Your task to perform on an android device: Search for Italian restaurants on Maps Image 0: 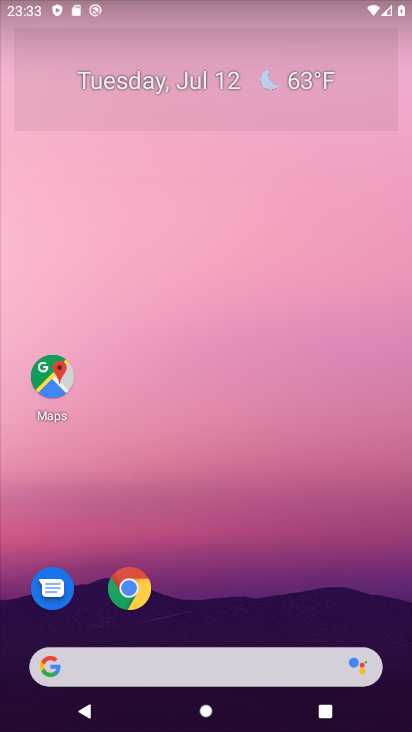
Step 0: click (55, 398)
Your task to perform on an android device: Search for Italian restaurants on Maps Image 1: 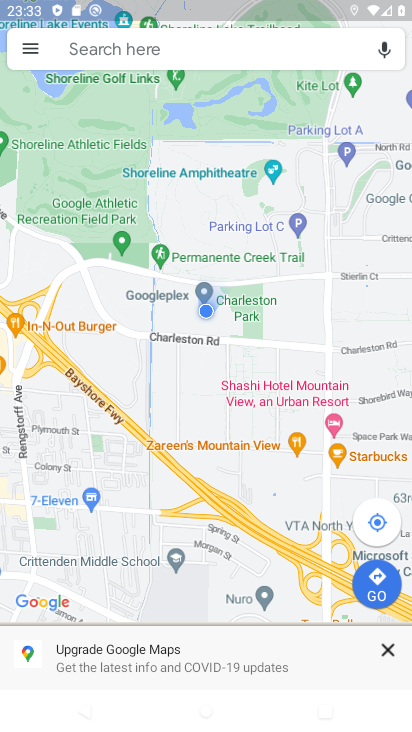
Step 1: click (113, 45)
Your task to perform on an android device: Search for Italian restaurants on Maps Image 2: 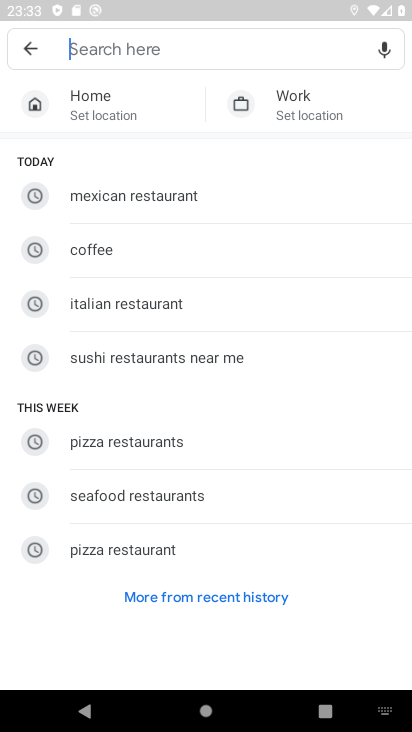
Step 2: click (138, 309)
Your task to perform on an android device: Search for Italian restaurants on Maps Image 3: 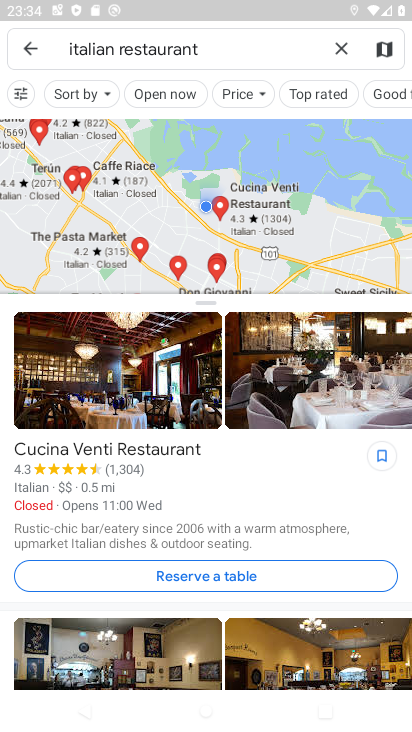
Step 3: task complete